Your task to perform on an android device: toggle airplane mode Image 0: 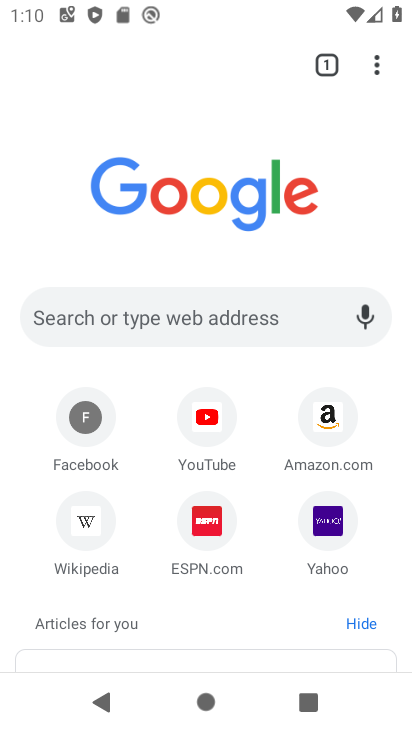
Step 0: press home button
Your task to perform on an android device: toggle airplane mode Image 1: 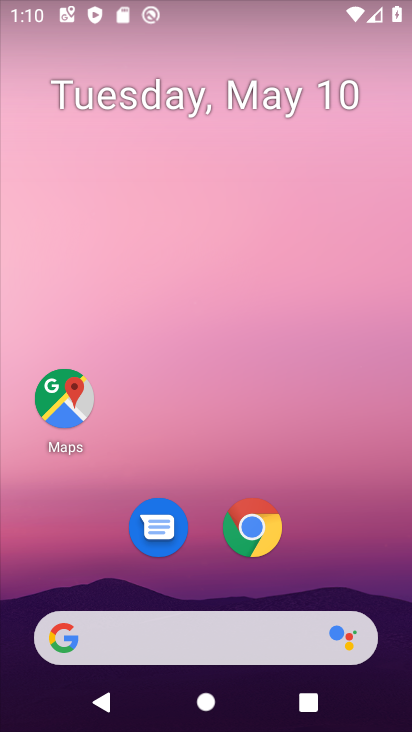
Step 1: drag from (202, 585) to (224, 224)
Your task to perform on an android device: toggle airplane mode Image 2: 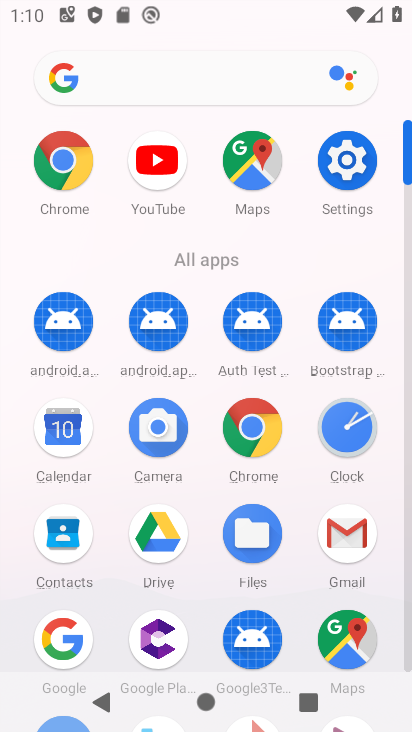
Step 2: click (347, 162)
Your task to perform on an android device: toggle airplane mode Image 3: 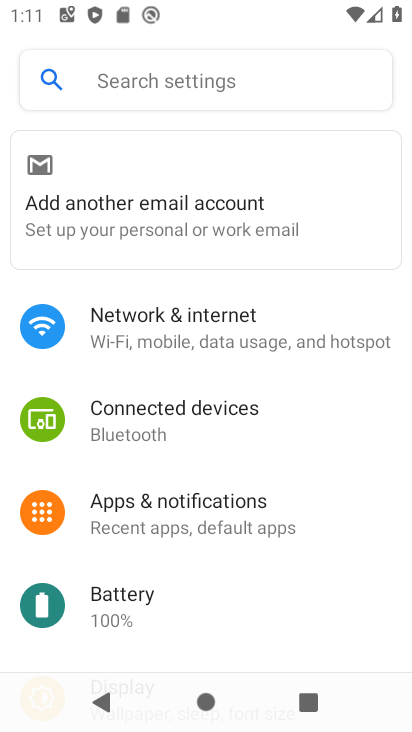
Step 3: drag from (194, 611) to (191, 532)
Your task to perform on an android device: toggle airplane mode Image 4: 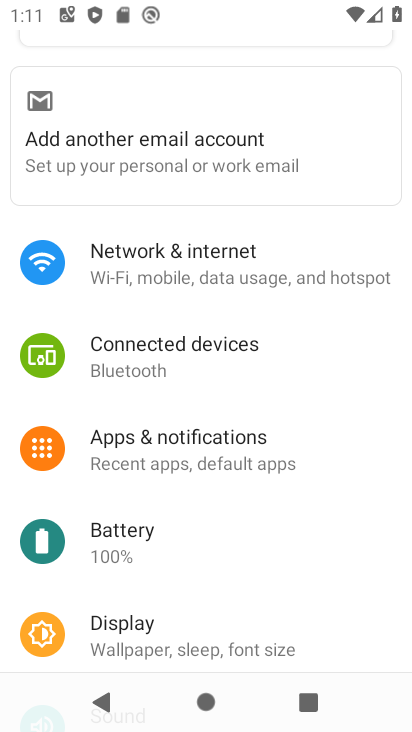
Step 4: click (143, 268)
Your task to perform on an android device: toggle airplane mode Image 5: 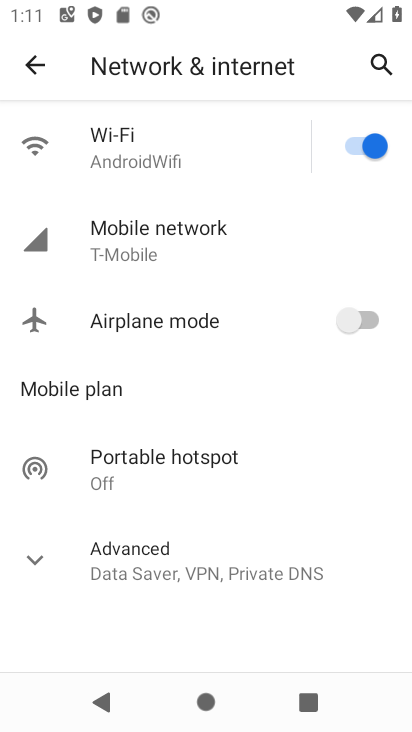
Step 5: click (370, 320)
Your task to perform on an android device: toggle airplane mode Image 6: 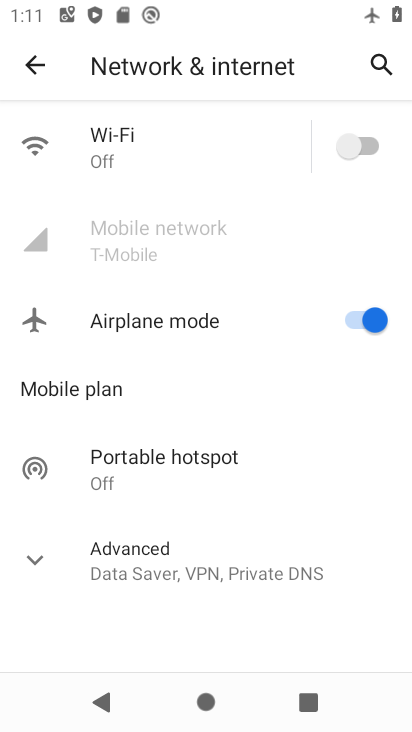
Step 6: task complete